Your task to perform on an android device: Show me popular videos on Youtube Image 0: 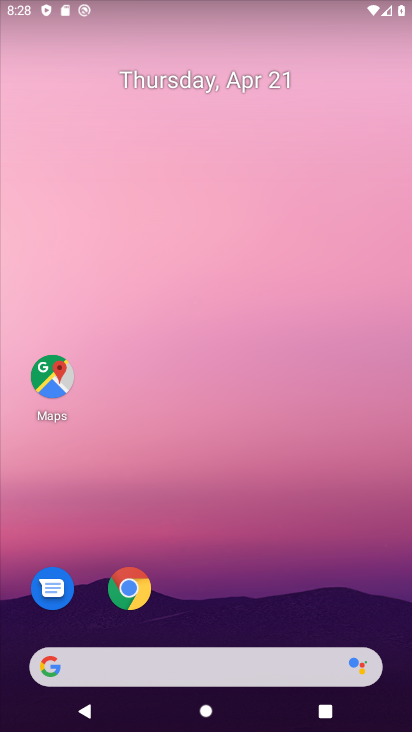
Step 0: drag from (295, 554) to (240, 54)
Your task to perform on an android device: Show me popular videos on Youtube Image 1: 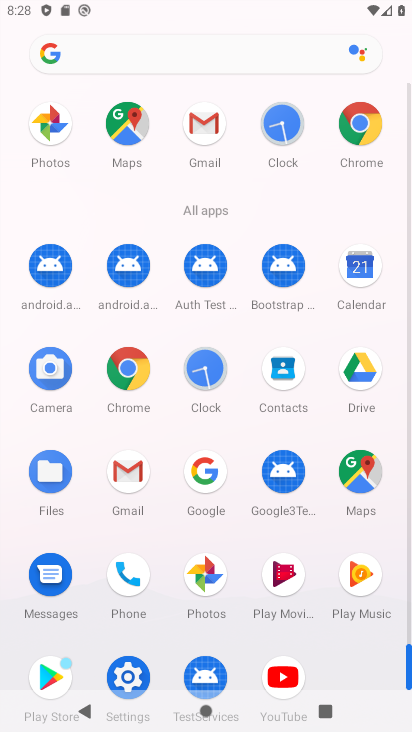
Step 1: drag from (14, 530) to (15, 271)
Your task to perform on an android device: Show me popular videos on Youtube Image 2: 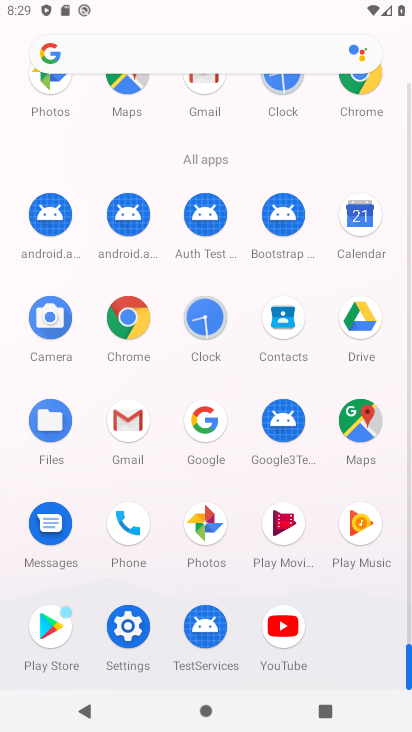
Step 2: click (285, 628)
Your task to perform on an android device: Show me popular videos on Youtube Image 3: 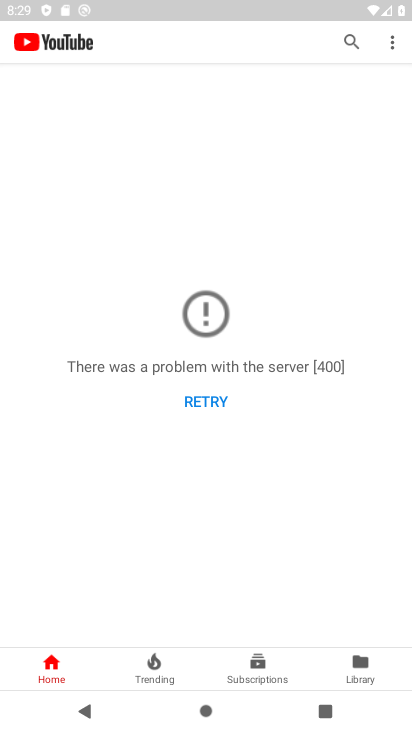
Step 3: click (365, 680)
Your task to perform on an android device: Show me popular videos on Youtube Image 4: 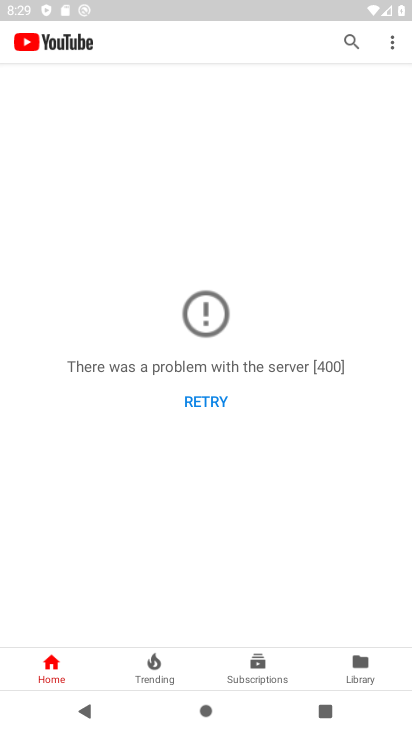
Step 4: click (146, 671)
Your task to perform on an android device: Show me popular videos on Youtube Image 5: 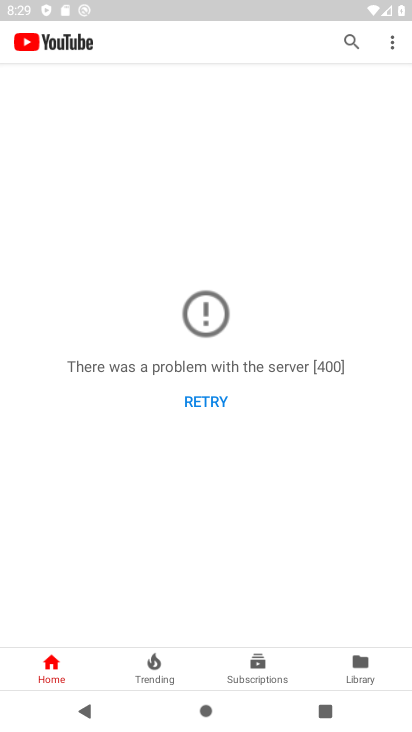
Step 5: task complete